Your task to perform on an android device: Go to battery settings Image 0: 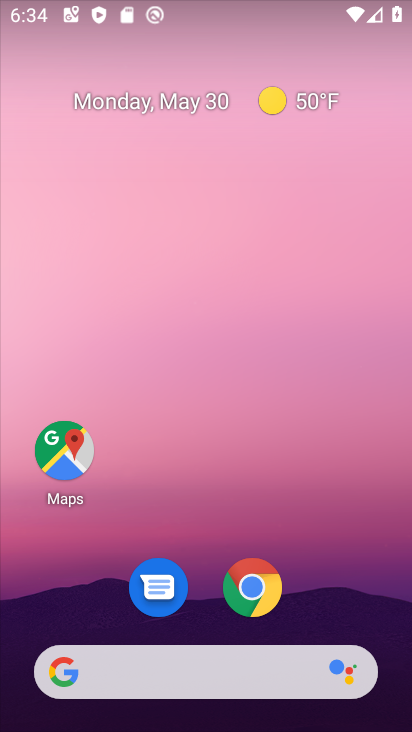
Step 0: drag from (288, 505) to (212, 80)
Your task to perform on an android device: Go to battery settings Image 1: 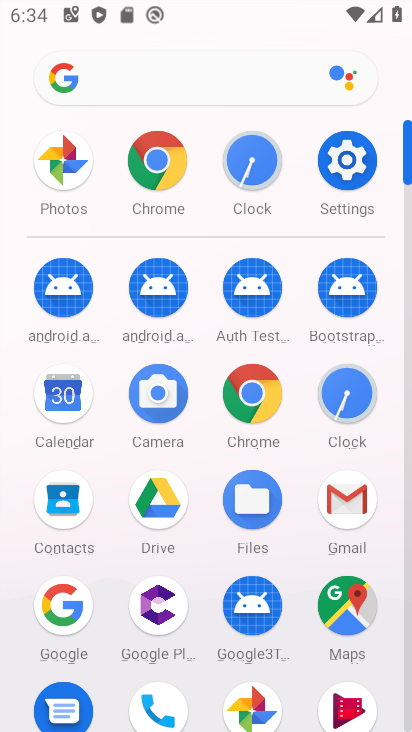
Step 1: drag from (20, 557) to (13, 189)
Your task to perform on an android device: Go to battery settings Image 2: 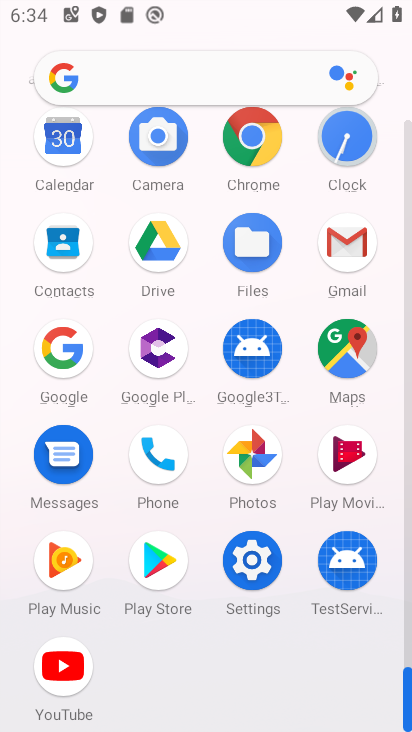
Step 2: click (254, 555)
Your task to perform on an android device: Go to battery settings Image 3: 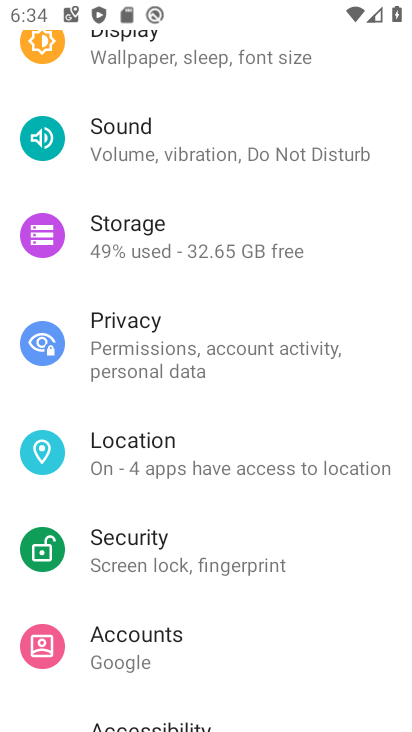
Step 3: drag from (273, 154) to (266, 621)
Your task to perform on an android device: Go to battery settings Image 4: 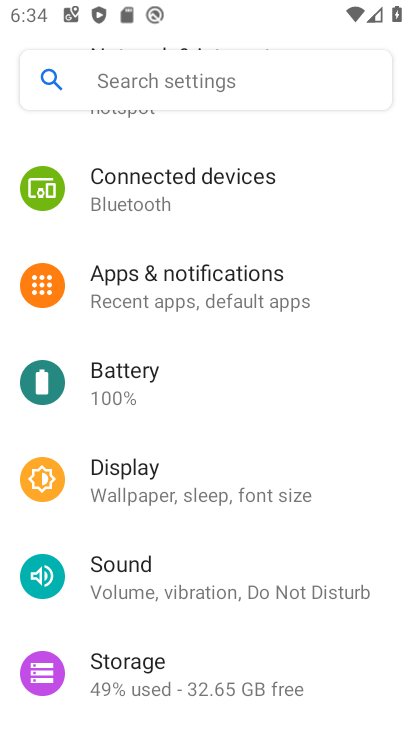
Step 4: drag from (254, 331) to (255, 617)
Your task to perform on an android device: Go to battery settings Image 5: 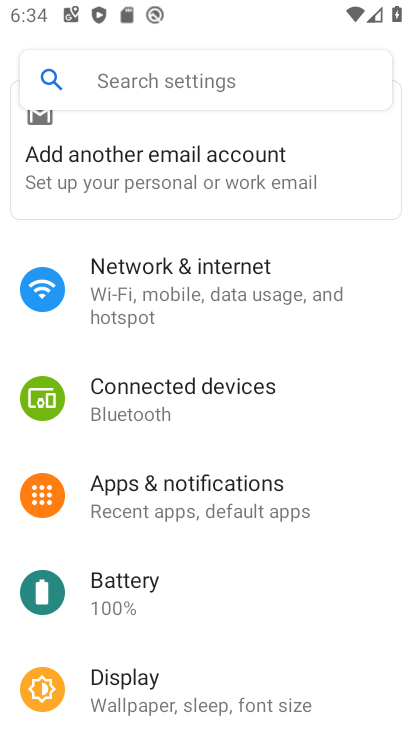
Step 5: click (99, 590)
Your task to perform on an android device: Go to battery settings Image 6: 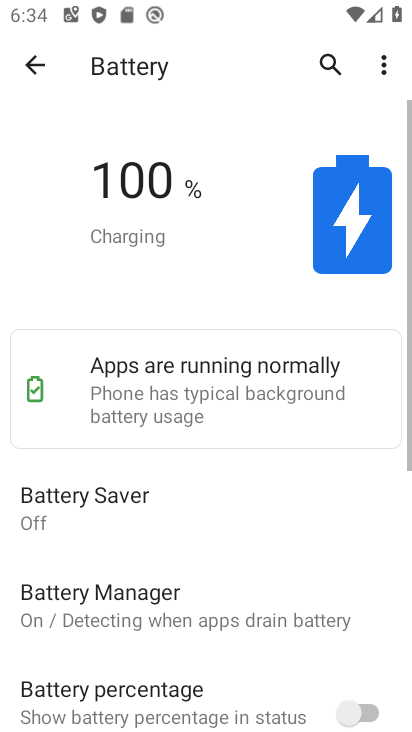
Step 6: task complete